Your task to perform on an android device: toggle priority inbox in the gmail app Image 0: 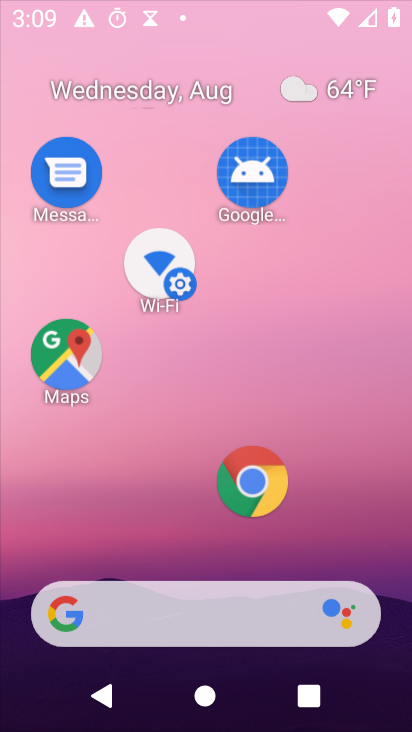
Step 0: press home button
Your task to perform on an android device: toggle priority inbox in the gmail app Image 1: 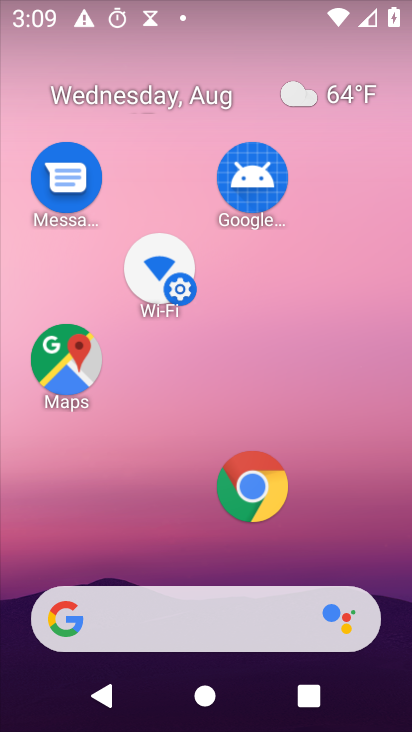
Step 1: drag from (337, 543) to (381, 12)
Your task to perform on an android device: toggle priority inbox in the gmail app Image 2: 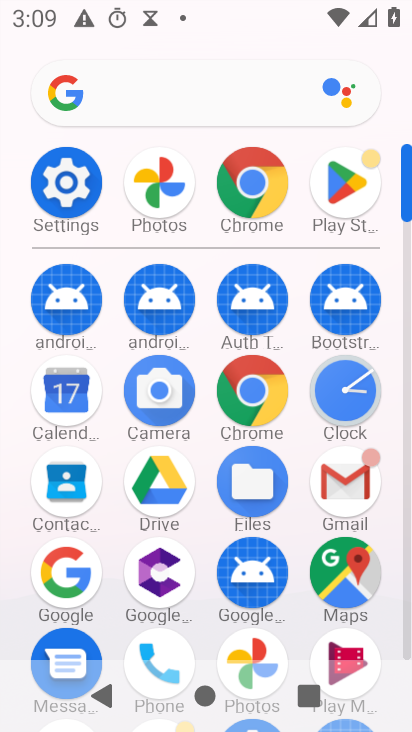
Step 2: click (344, 497)
Your task to perform on an android device: toggle priority inbox in the gmail app Image 3: 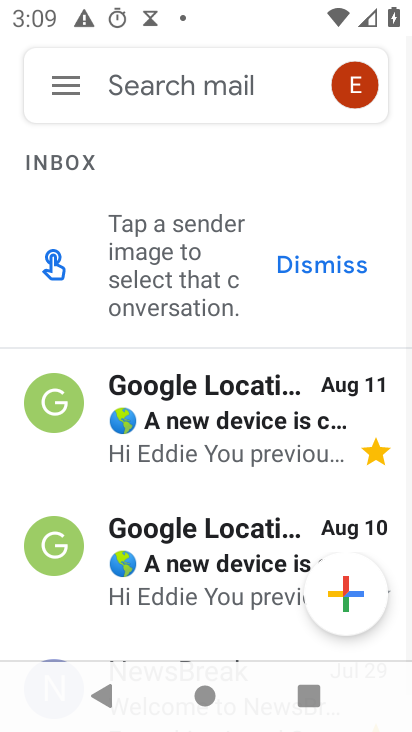
Step 3: click (61, 86)
Your task to perform on an android device: toggle priority inbox in the gmail app Image 4: 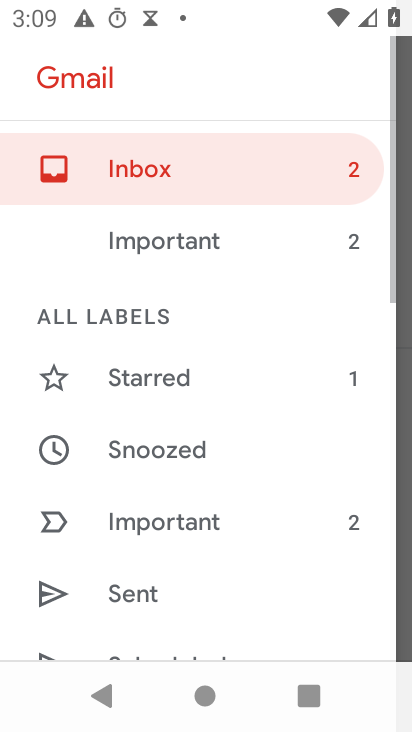
Step 4: drag from (324, 447) to (333, 13)
Your task to perform on an android device: toggle priority inbox in the gmail app Image 5: 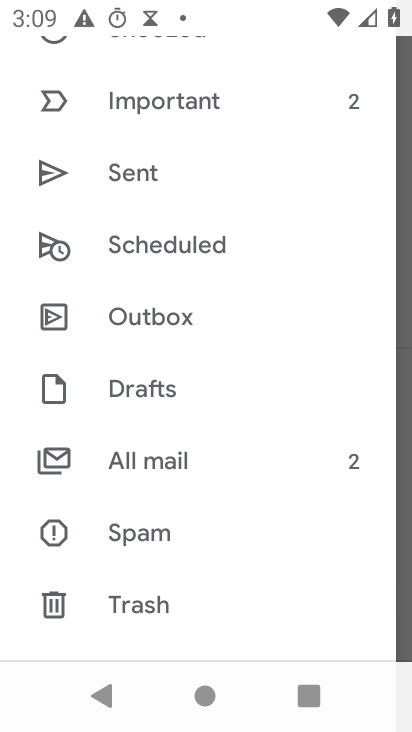
Step 5: drag from (321, 603) to (357, 84)
Your task to perform on an android device: toggle priority inbox in the gmail app Image 6: 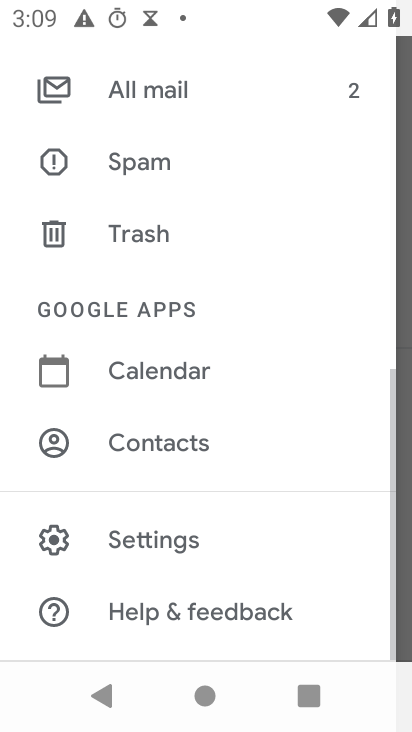
Step 6: click (154, 541)
Your task to perform on an android device: toggle priority inbox in the gmail app Image 7: 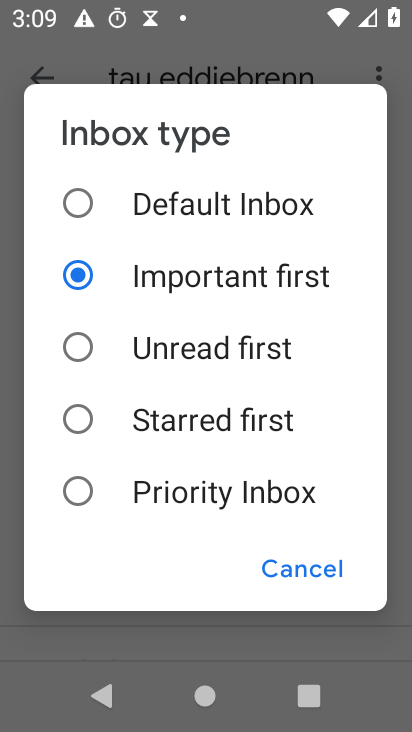
Step 7: click (81, 483)
Your task to perform on an android device: toggle priority inbox in the gmail app Image 8: 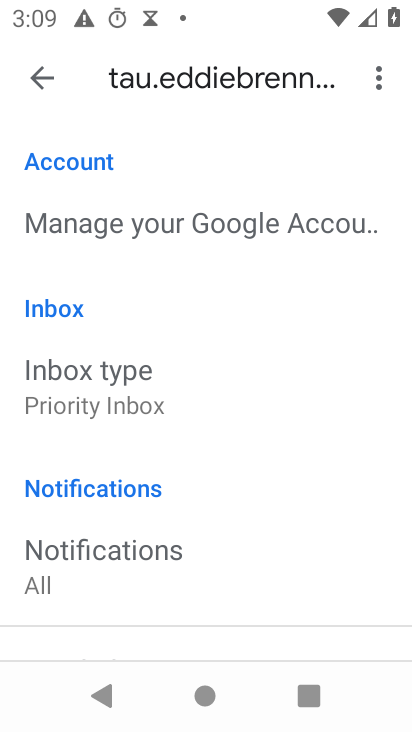
Step 8: task complete